Your task to perform on an android device: Open maps Image 0: 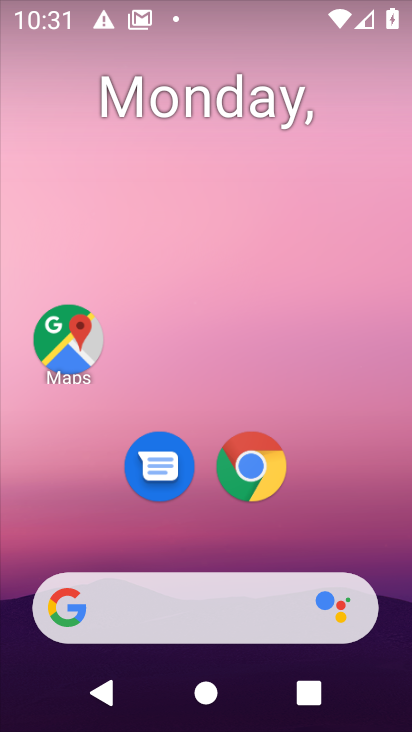
Step 0: click (381, 160)
Your task to perform on an android device: Open maps Image 1: 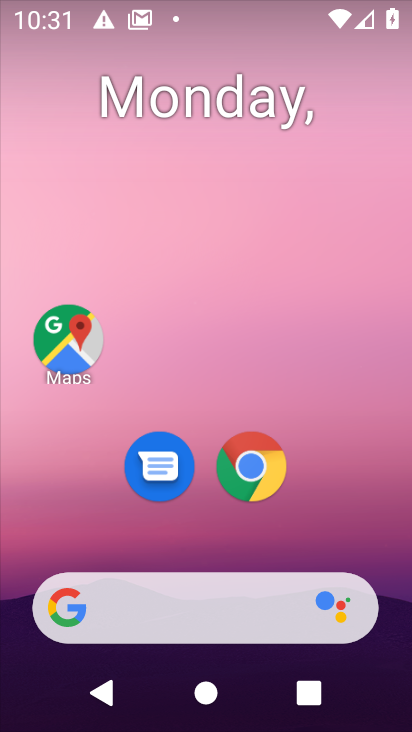
Step 1: click (82, 332)
Your task to perform on an android device: Open maps Image 2: 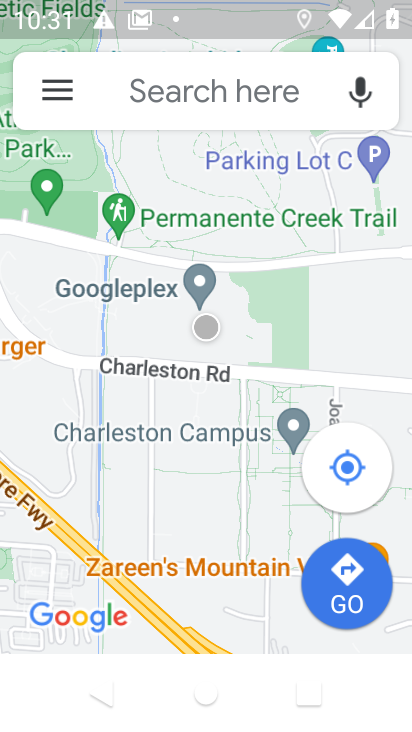
Step 2: task complete